Your task to perform on an android device: turn off sleep mode Image 0: 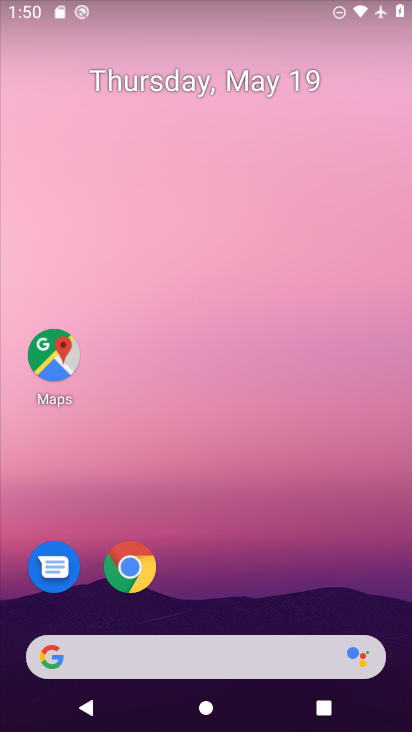
Step 0: drag from (231, 578) to (244, 66)
Your task to perform on an android device: turn off sleep mode Image 1: 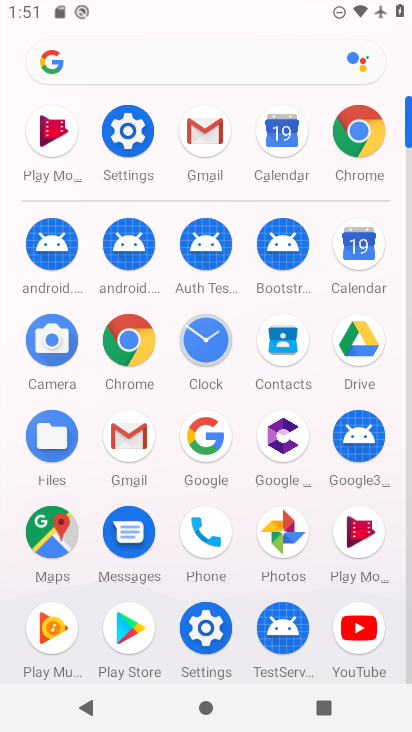
Step 1: click (137, 139)
Your task to perform on an android device: turn off sleep mode Image 2: 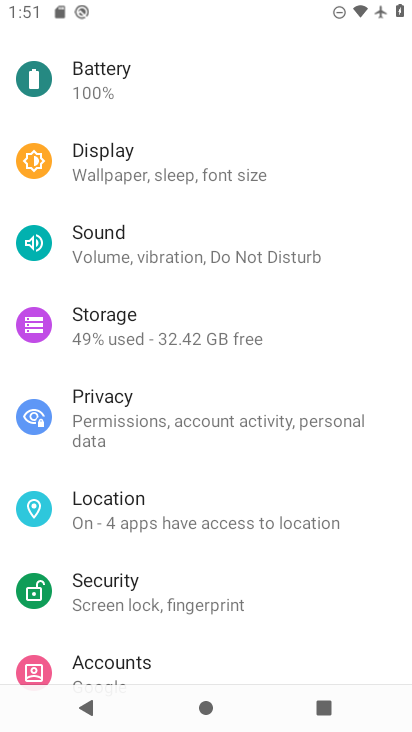
Step 2: click (185, 167)
Your task to perform on an android device: turn off sleep mode Image 3: 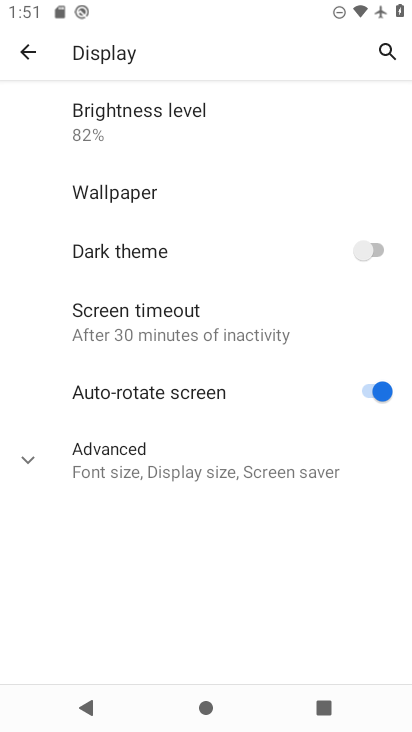
Step 3: click (28, 452)
Your task to perform on an android device: turn off sleep mode Image 4: 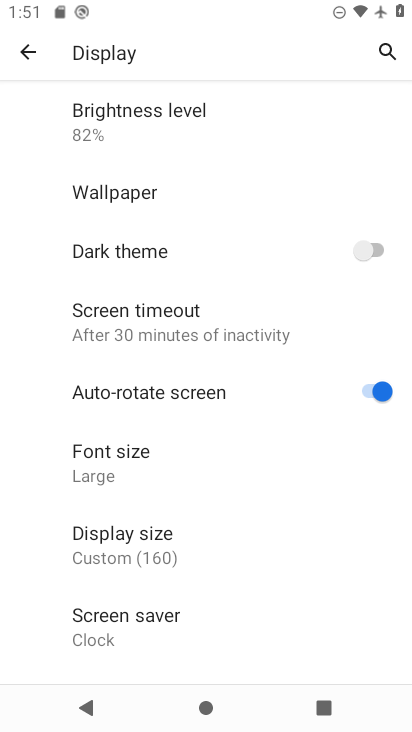
Step 4: task complete